Your task to perform on an android device: Open the stopwatch Image 0: 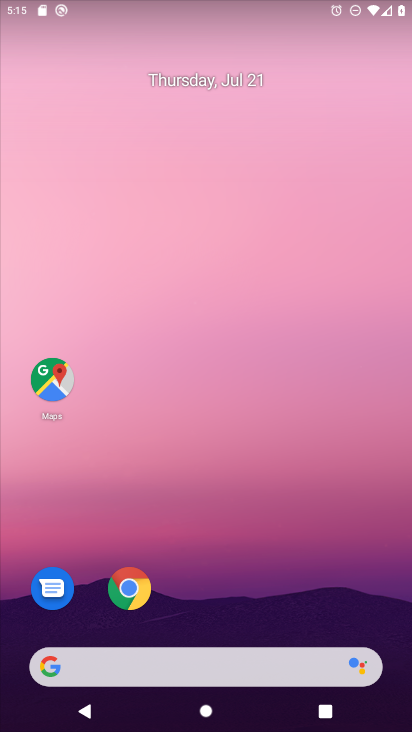
Step 0: drag from (281, 617) to (179, 123)
Your task to perform on an android device: Open the stopwatch Image 1: 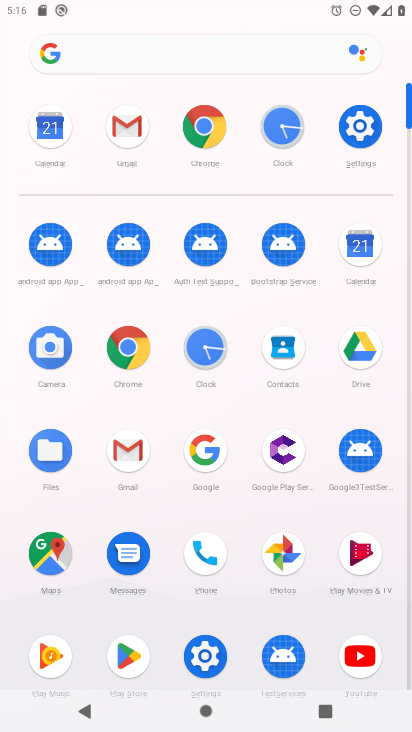
Step 1: click (285, 132)
Your task to perform on an android device: Open the stopwatch Image 2: 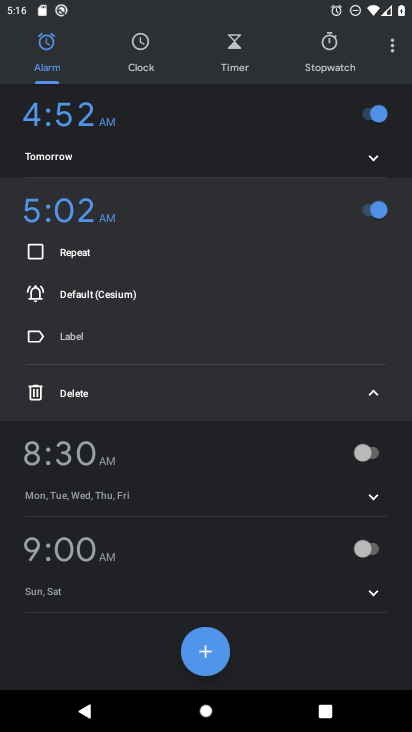
Step 2: task complete